Your task to perform on an android device: open a bookmark in the chrome app Image 0: 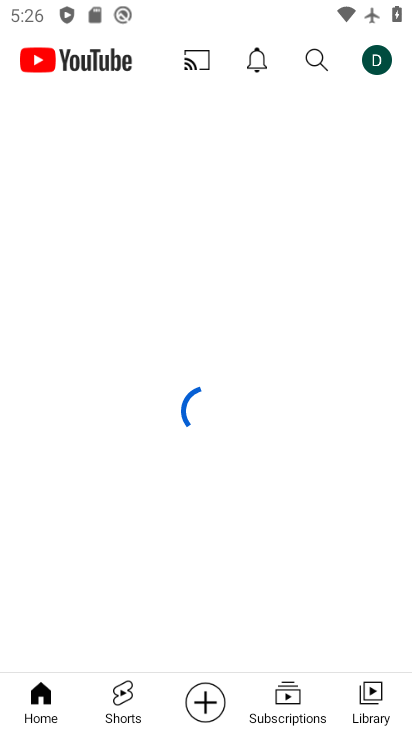
Step 0: press home button
Your task to perform on an android device: open a bookmark in the chrome app Image 1: 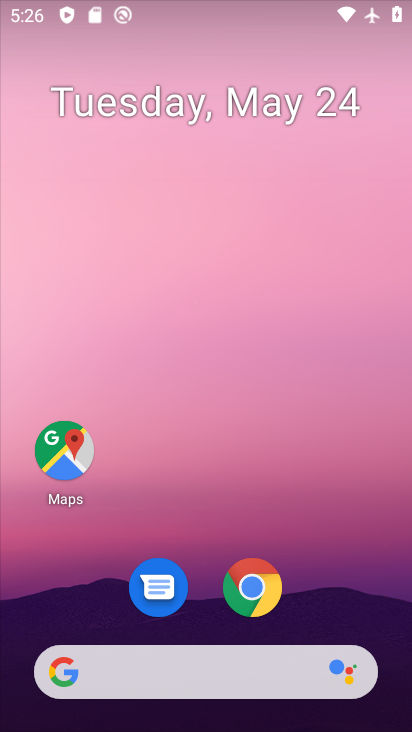
Step 1: click (249, 605)
Your task to perform on an android device: open a bookmark in the chrome app Image 2: 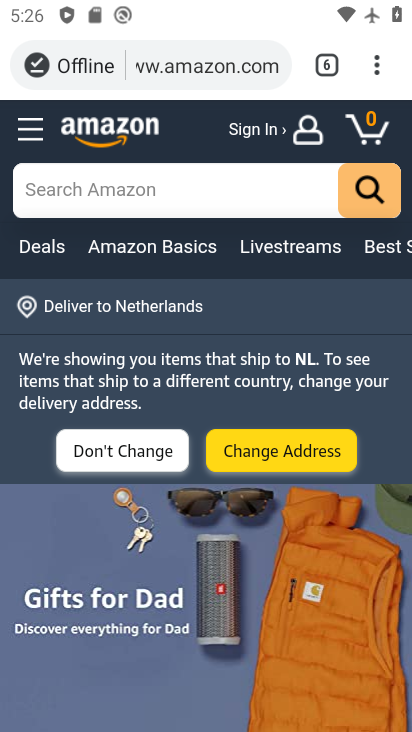
Step 2: click (381, 61)
Your task to perform on an android device: open a bookmark in the chrome app Image 3: 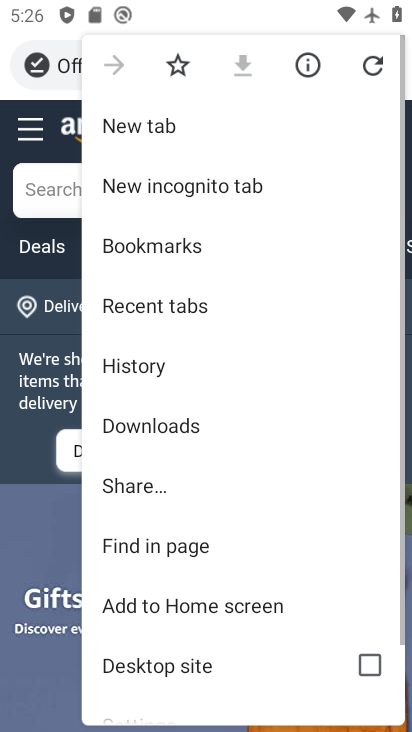
Step 3: click (273, 260)
Your task to perform on an android device: open a bookmark in the chrome app Image 4: 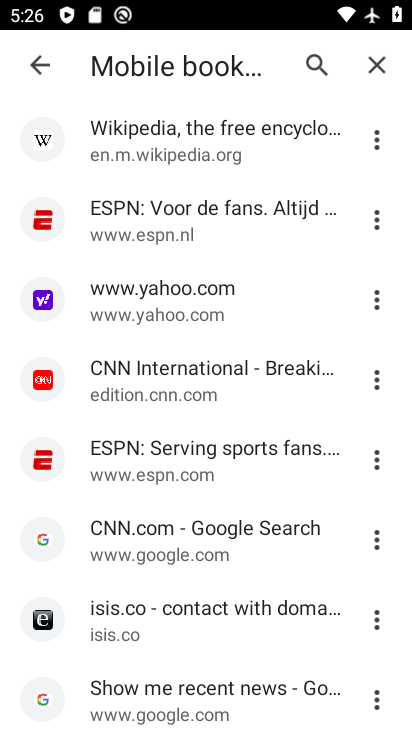
Step 4: click (237, 418)
Your task to perform on an android device: open a bookmark in the chrome app Image 5: 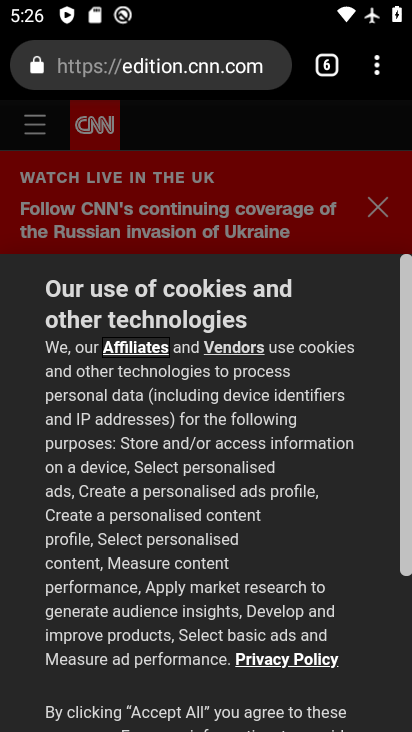
Step 5: task complete